Your task to perform on an android device: Open Android settings Image 0: 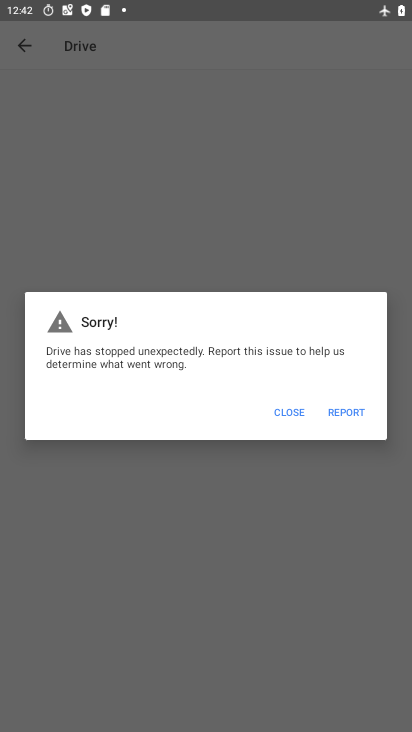
Step 0: press home button
Your task to perform on an android device: Open Android settings Image 1: 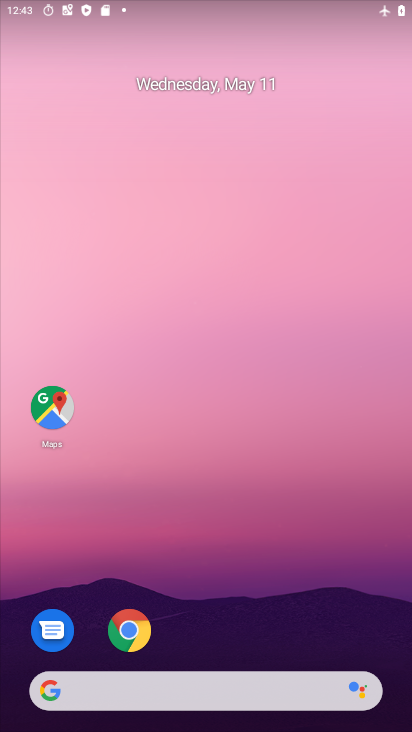
Step 1: drag from (239, 620) to (276, 66)
Your task to perform on an android device: Open Android settings Image 2: 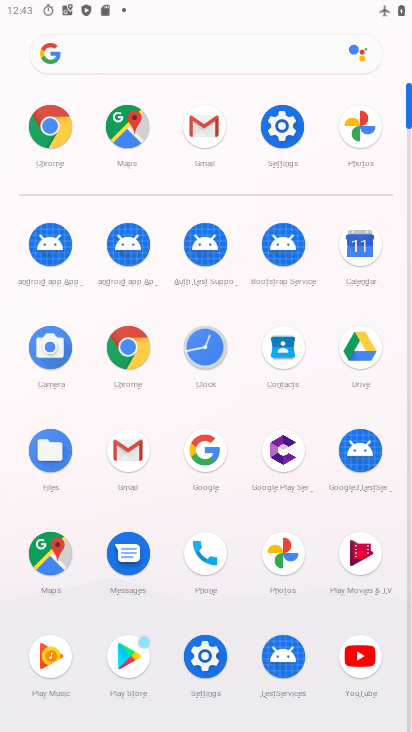
Step 2: click (279, 112)
Your task to perform on an android device: Open Android settings Image 3: 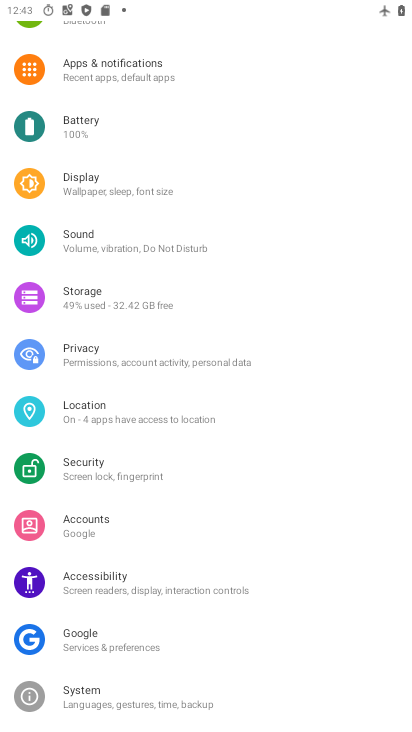
Step 3: task complete